Your task to perform on an android device: Open location settings Image 0: 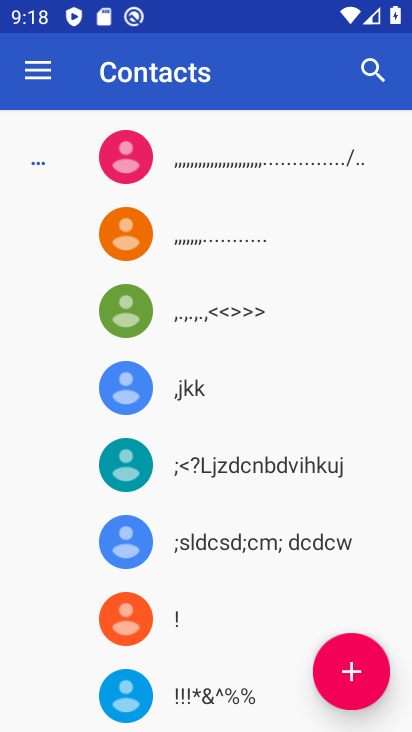
Step 0: press back button
Your task to perform on an android device: Open location settings Image 1: 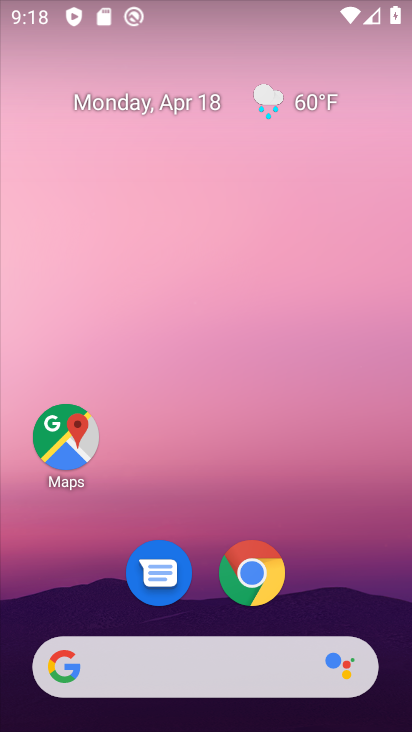
Step 1: drag from (206, 728) to (208, 175)
Your task to perform on an android device: Open location settings Image 2: 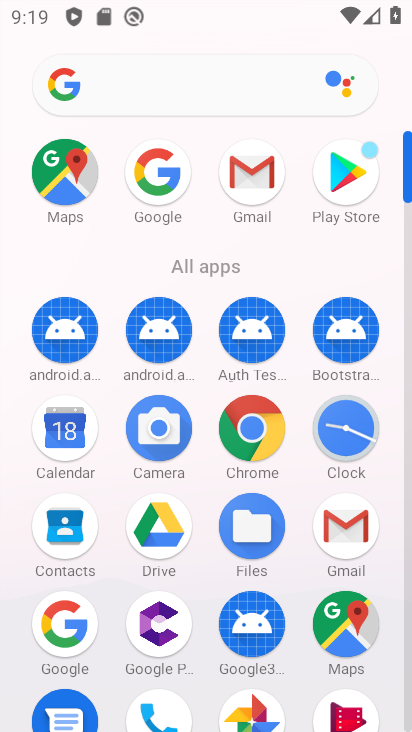
Step 2: drag from (205, 674) to (189, 274)
Your task to perform on an android device: Open location settings Image 3: 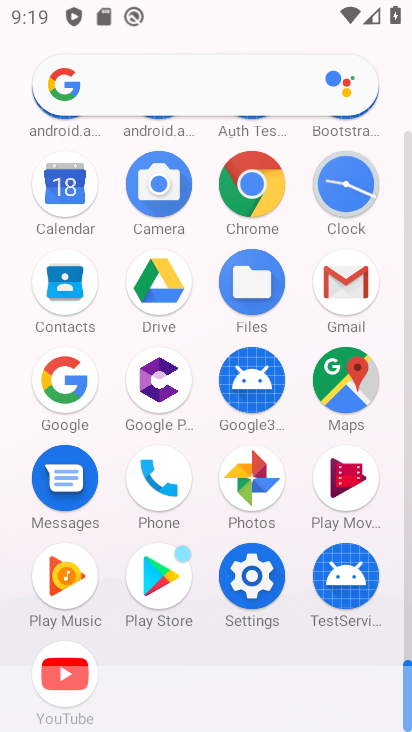
Step 3: click (256, 580)
Your task to perform on an android device: Open location settings Image 4: 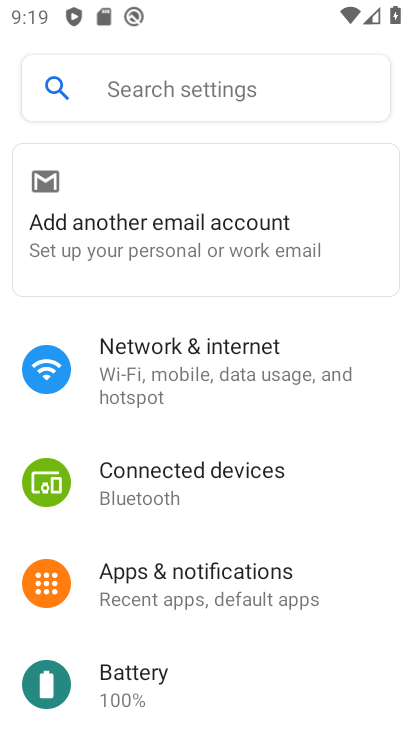
Step 4: drag from (235, 665) to (233, 285)
Your task to perform on an android device: Open location settings Image 5: 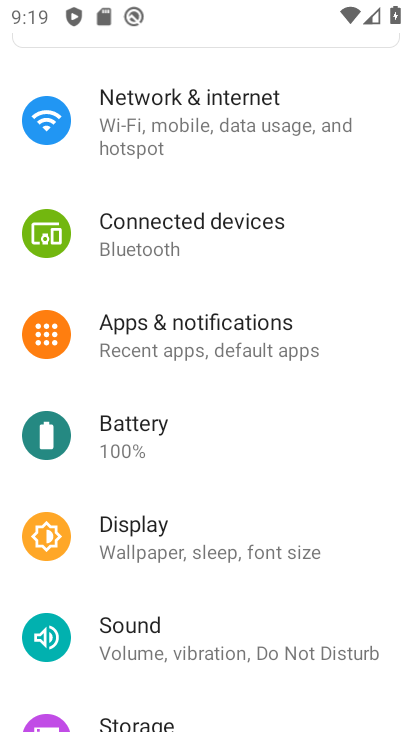
Step 5: drag from (215, 679) to (217, 271)
Your task to perform on an android device: Open location settings Image 6: 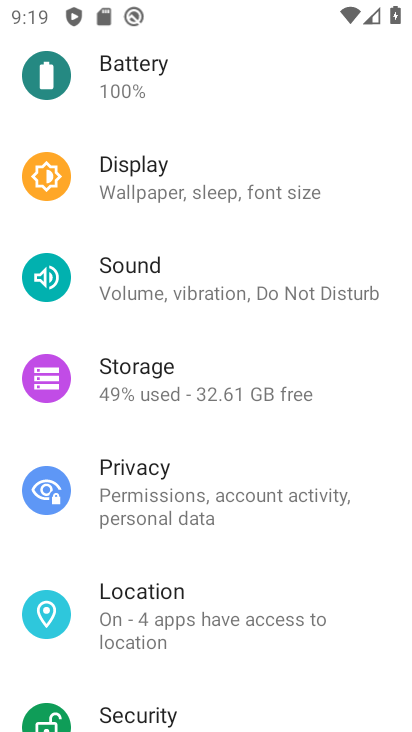
Step 6: click (172, 606)
Your task to perform on an android device: Open location settings Image 7: 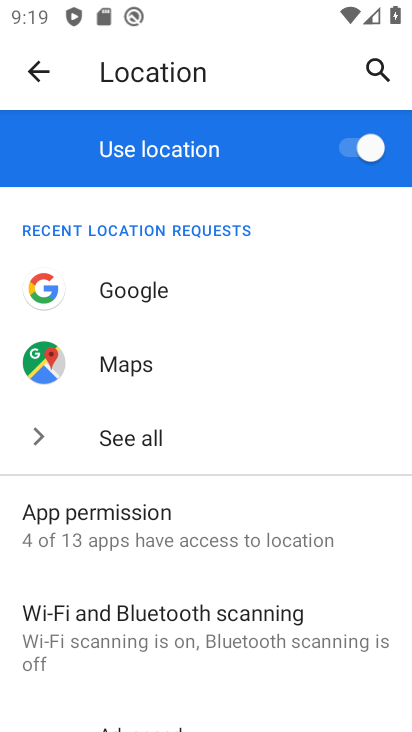
Step 7: drag from (168, 582) to (187, 175)
Your task to perform on an android device: Open location settings Image 8: 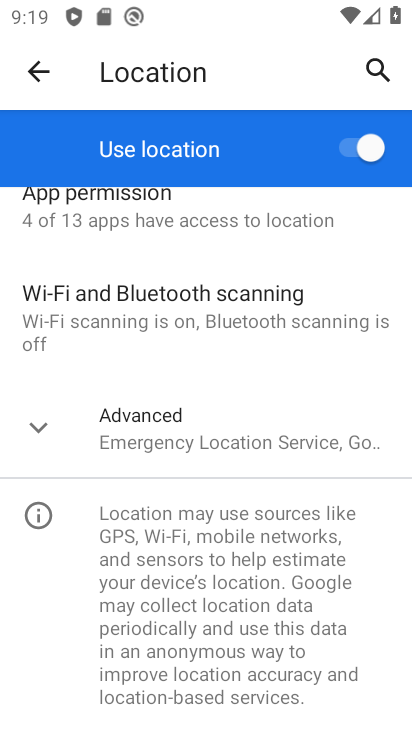
Step 8: click (188, 438)
Your task to perform on an android device: Open location settings Image 9: 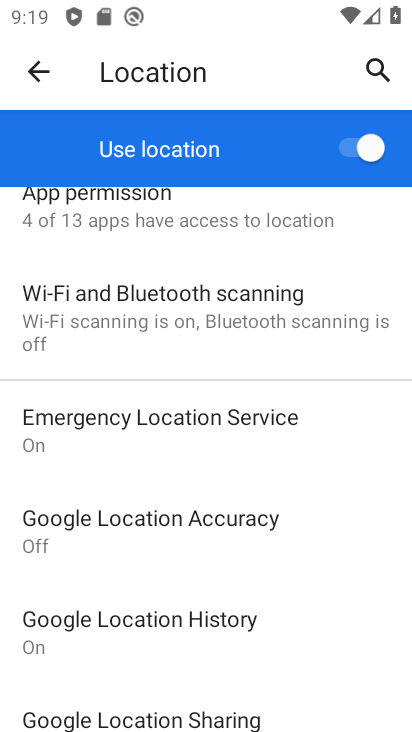
Step 9: task complete